Your task to perform on an android device: Add "duracell triple a" to the cart on ebay.com Image 0: 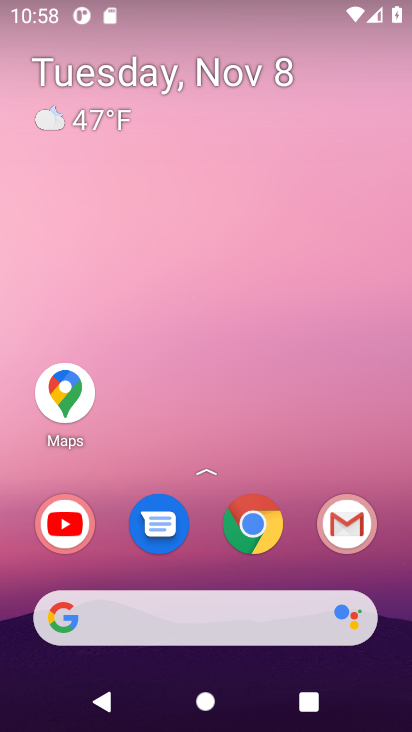
Step 0: click (247, 526)
Your task to perform on an android device: Add "duracell triple a" to the cart on ebay.com Image 1: 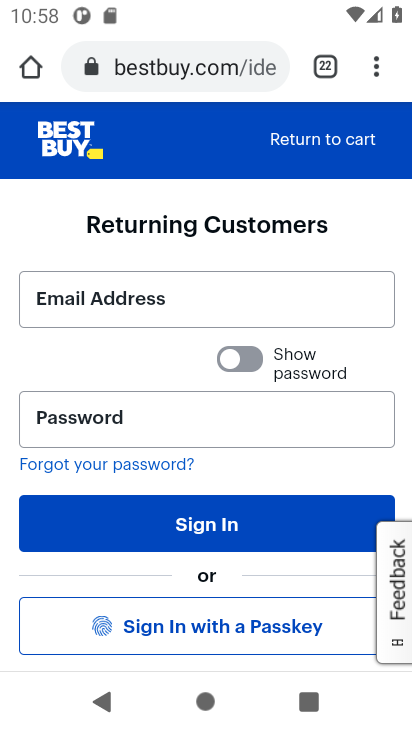
Step 1: click (158, 60)
Your task to perform on an android device: Add "duracell triple a" to the cart on ebay.com Image 2: 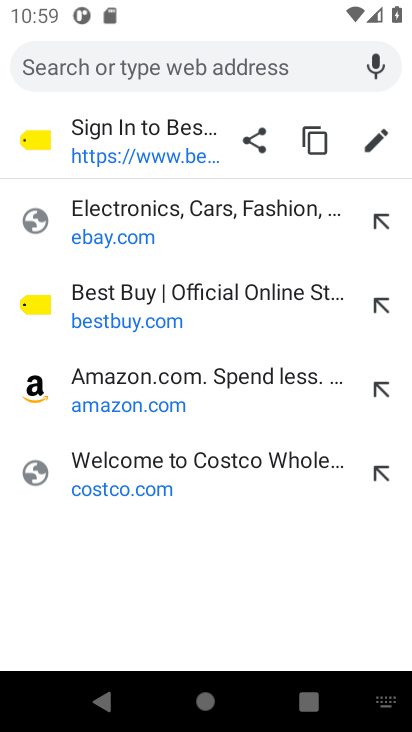
Step 2: click (115, 241)
Your task to perform on an android device: Add "duracell triple a" to the cart on ebay.com Image 3: 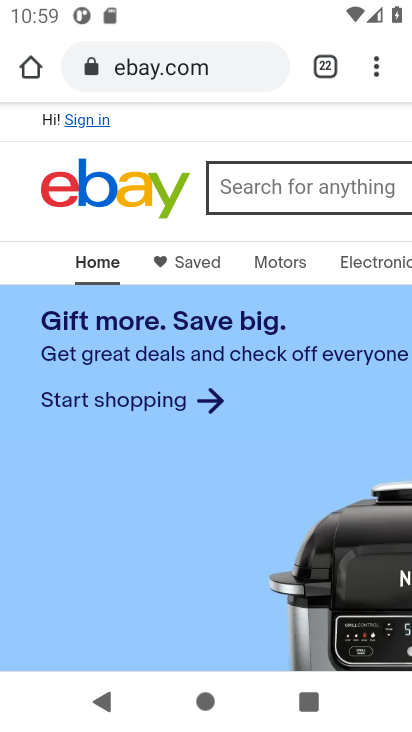
Step 3: click (289, 193)
Your task to perform on an android device: Add "duracell triple a" to the cart on ebay.com Image 4: 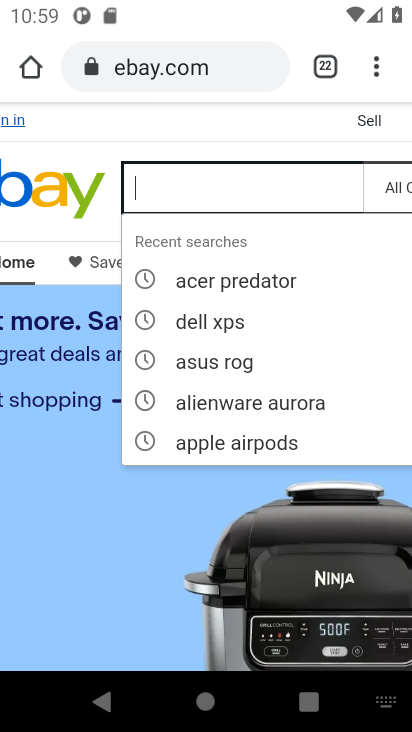
Step 4: type "duracell triple a"
Your task to perform on an android device: Add "duracell triple a" to the cart on ebay.com Image 5: 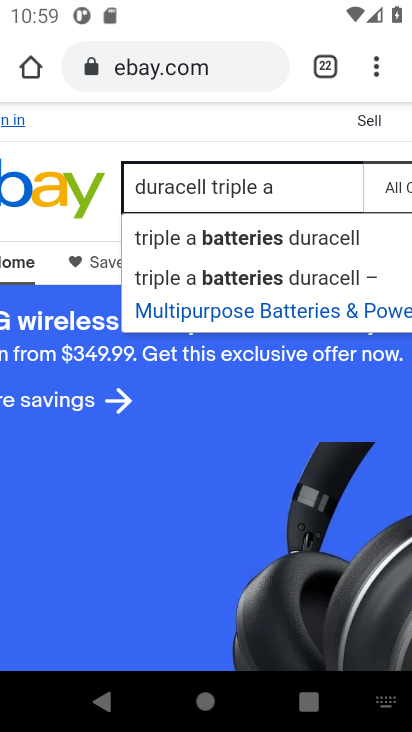
Step 5: drag from (321, 202) to (11, 217)
Your task to perform on an android device: Add "duracell triple a" to the cart on ebay.com Image 6: 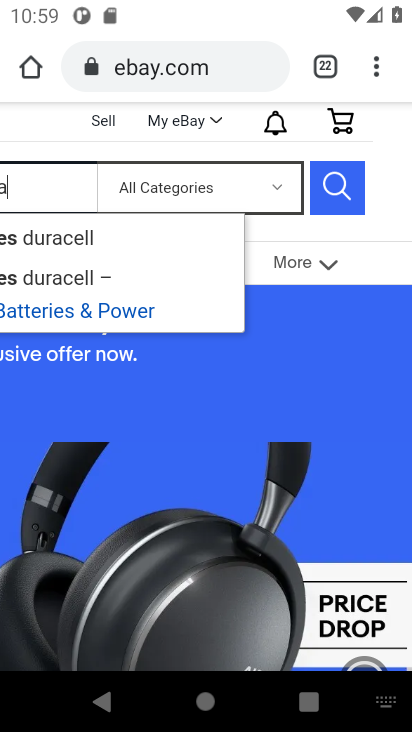
Step 6: click (330, 193)
Your task to perform on an android device: Add "duracell triple a" to the cart on ebay.com Image 7: 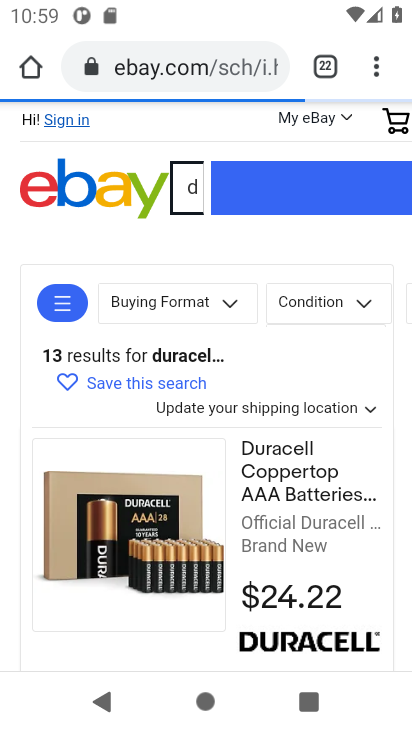
Step 7: drag from (129, 531) to (141, 297)
Your task to perform on an android device: Add "duracell triple a" to the cart on ebay.com Image 8: 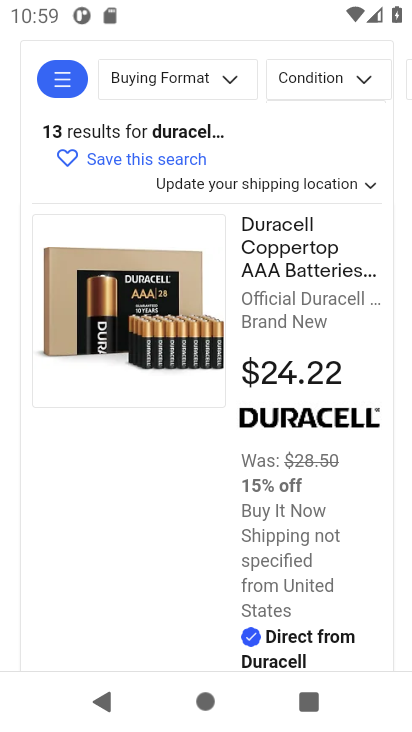
Step 8: click (168, 372)
Your task to perform on an android device: Add "duracell triple a" to the cart on ebay.com Image 9: 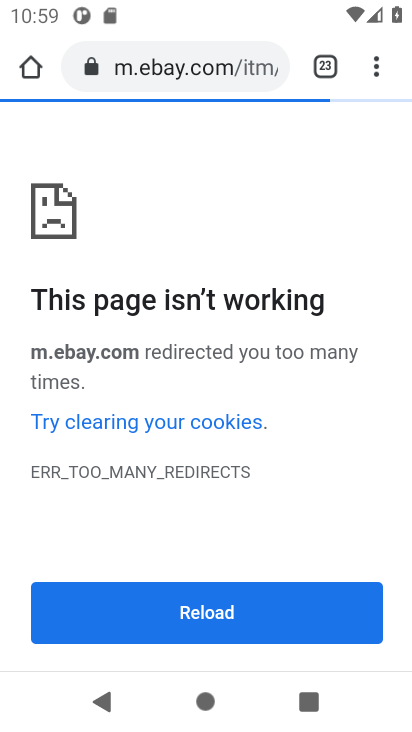
Step 9: task complete